Your task to perform on an android device: set the timer Image 0: 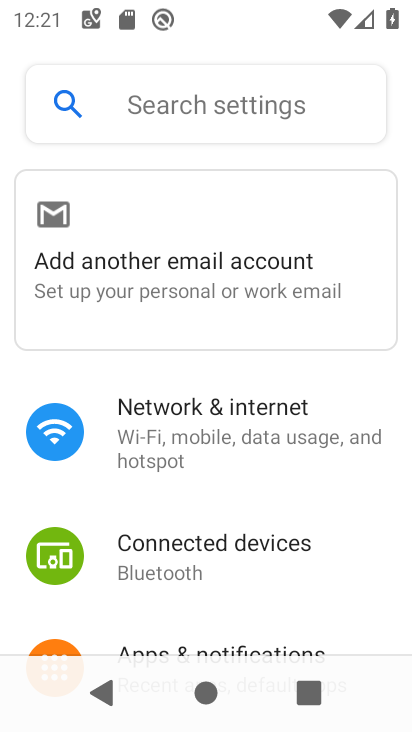
Step 0: press home button
Your task to perform on an android device: set the timer Image 1: 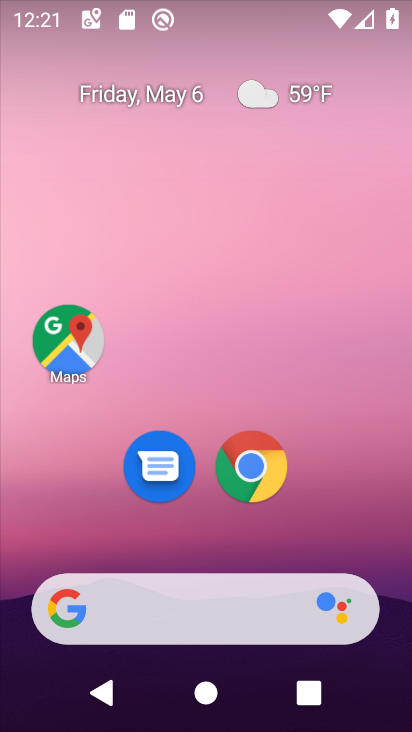
Step 1: press home button
Your task to perform on an android device: set the timer Image 2: 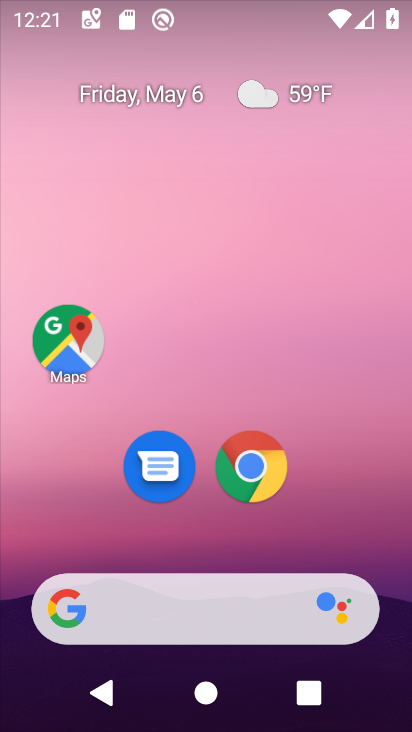
Step 2: drag from (353, 482) to (343, 107)
Your task to perform on an android device: set the timer Image 3: 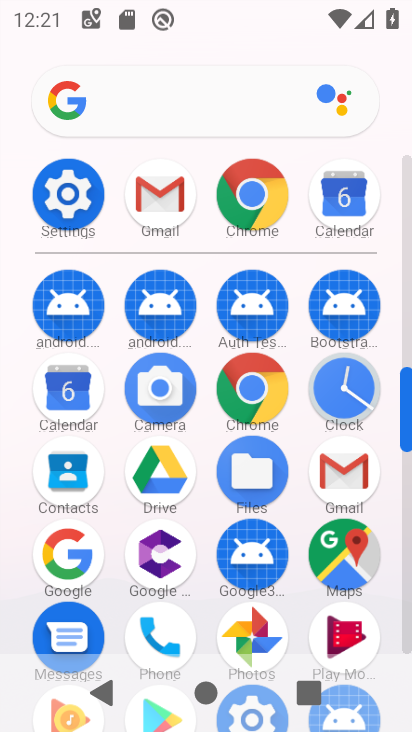
Step 3: click (349, 371)
Your task to perform on an android device: set the timer Image 4: 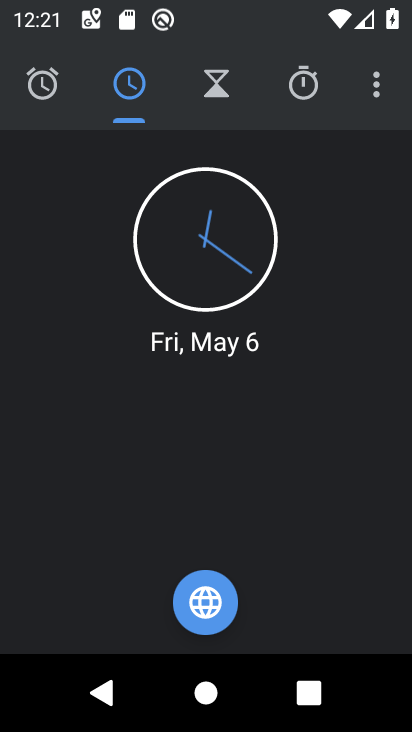
Step 4: click (221, 93)
Your task to perform on an android device: set the timer Image 5: 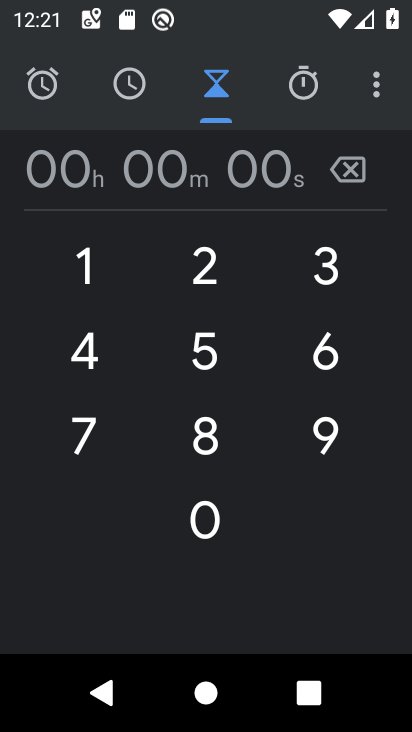
Step 5: type "10000"
Your task to perform on an android device: set the timer Image 6: 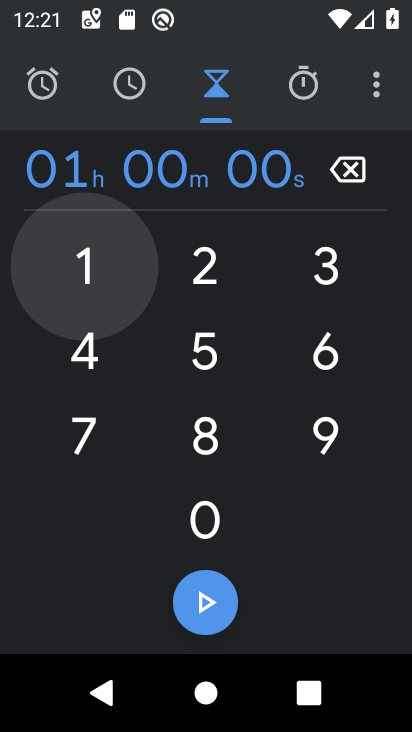
Step 6: click (213, 594)
Your task to perform on an android device: set the timer Image 7: 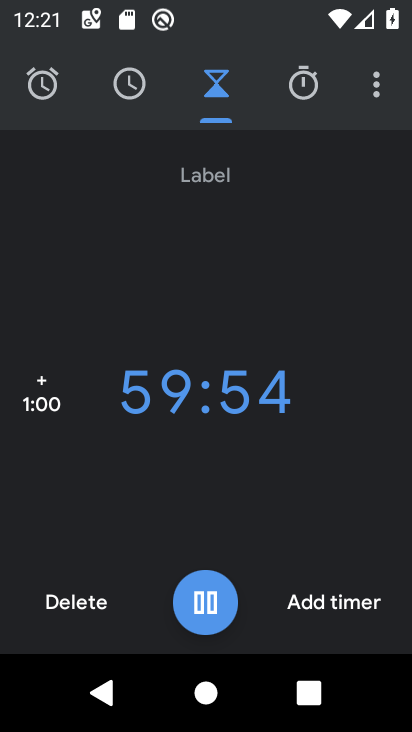
Step 7: task complete